Your task to perform on an android device: Do I have any events today? Image 0: 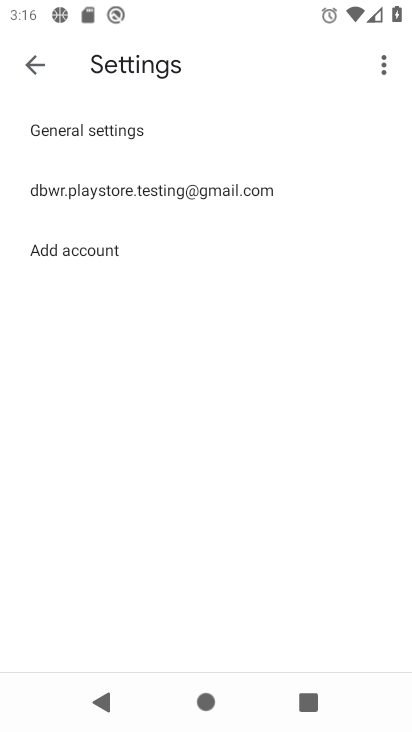
Step 0: press back button
Your task to perform on an android device: Do I have any events today? Image 1: 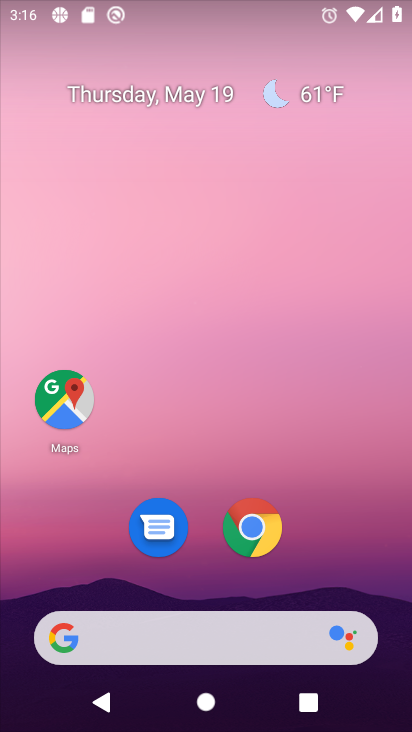
Step 1: drag from (198, 579) to (301, 34)
Your task to perform on an android device: Do I have any events today? Image 2: 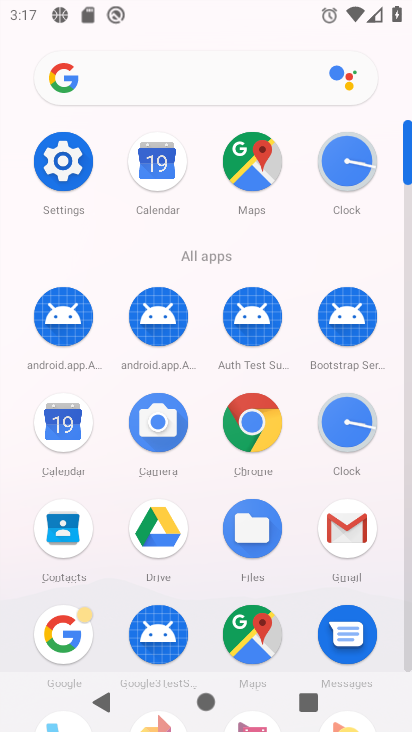
Step 2: click (60, 423)
Your task to perform on an android device: Do I have any events today? Image 3: 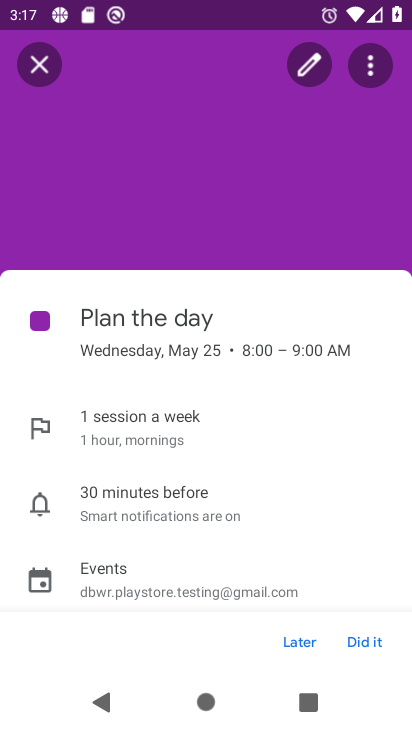
Step 3: click (26, 54)
Your task to perform on an android device: Do I have any events today? Image 4: 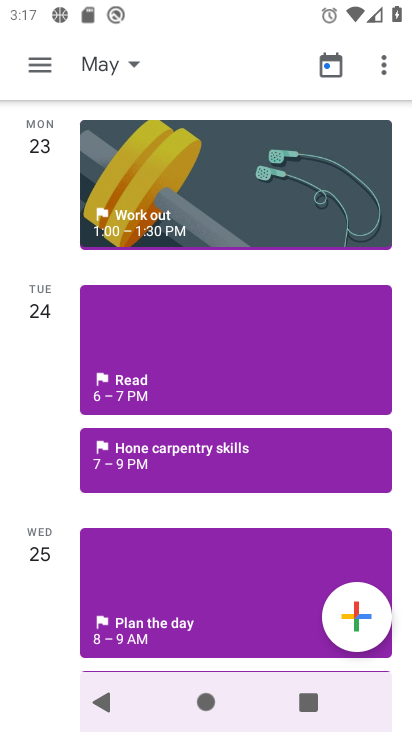
Step 4: drag from (197, 206) to (197, 623)
Your task to perform on an android device: Do I have any events today? Image 5: 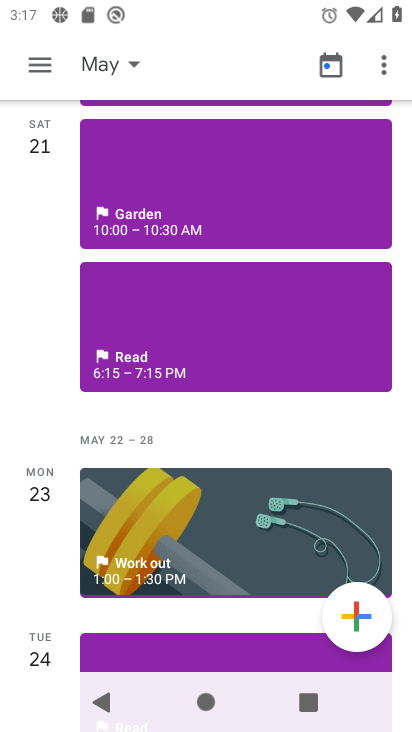
Step 5: drag from (177, 179) to (120, 634)
Your task to perform on an android device: Do I have any events today? Image 6: 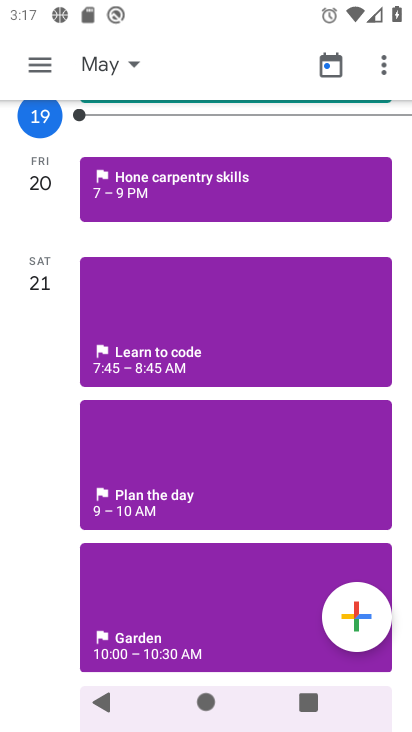
Step 6: click (176, 183)
Your task to perform on an android device: Do I have any events today? Image 7: 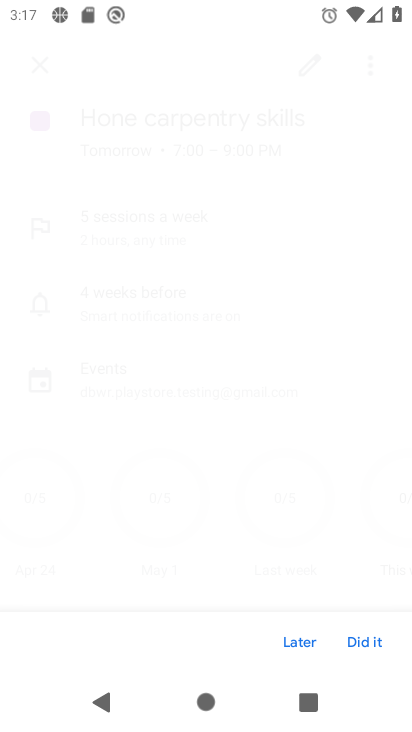
Step 7: task complete